Your task to perform on an android device: Do I have any events tomorrow? Image 0: 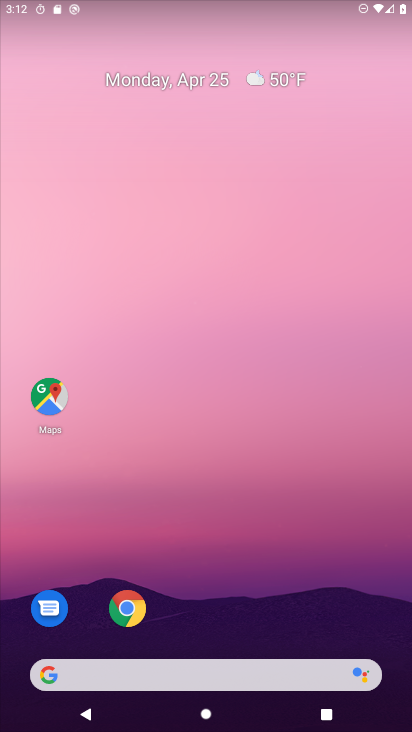
Step 0: drag from (207, 613) to (207, 168)
Your task to perform on an android device: Do I have any events tomorrow? Image 1: 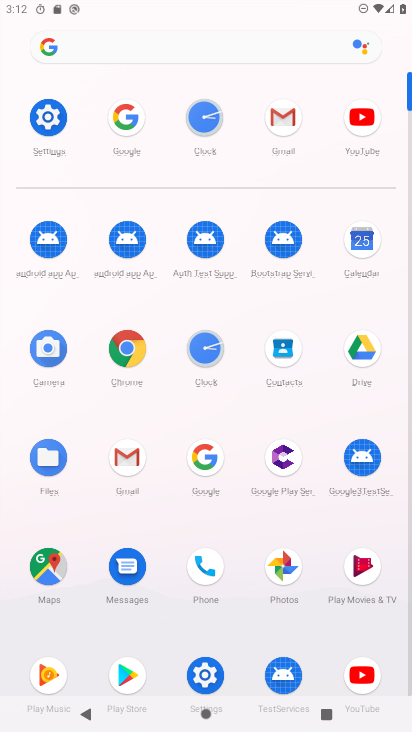
Step 1: click (352, 249)
Your task to perform on an android device: Do I have any events tomorrow? Image 2: 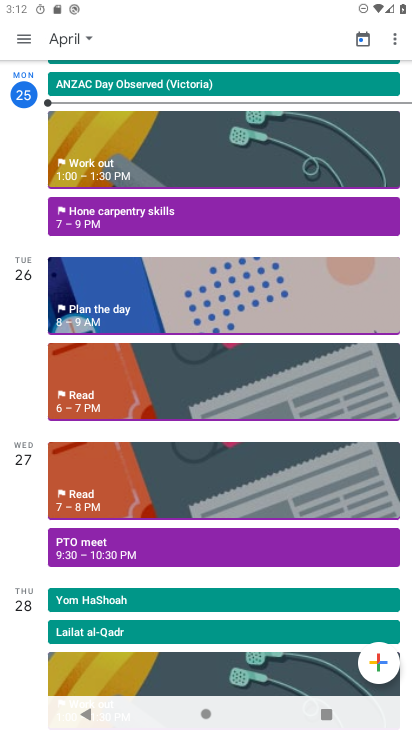
Step 2: click (61, 43)
Your task to perform on an android device: Do I have any events tomorrow? Image 3: 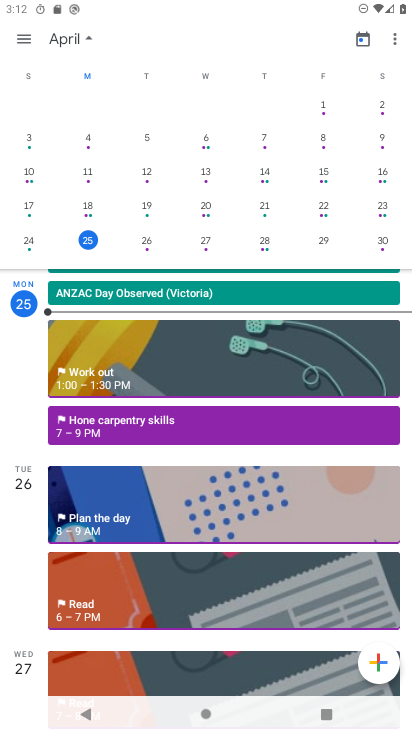
Step 3: click (137, 249)
Your task to perform on an android device: Do I have any events tomorrow? Image 4: 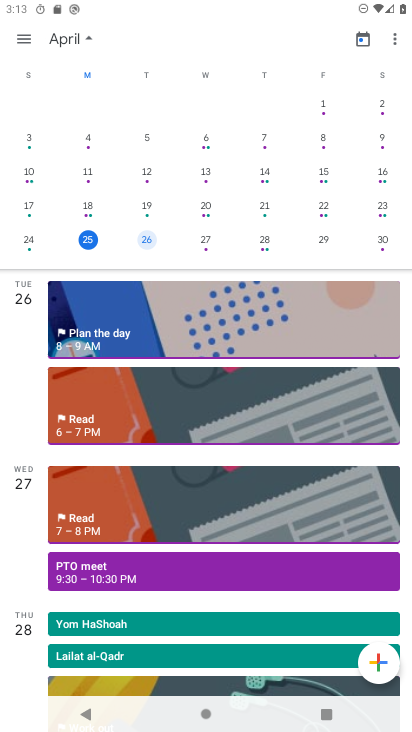
Step 4: click (144, 245)
Your task to perform on an android device: Do I have any events tomorrow? Image 5: 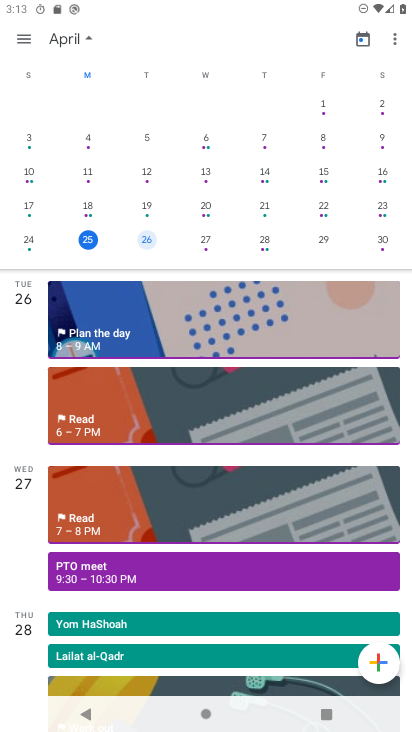
Step 5: click (149, 242)
Your task to perform on an android device: Do I have any events tomorrow? Image 6: 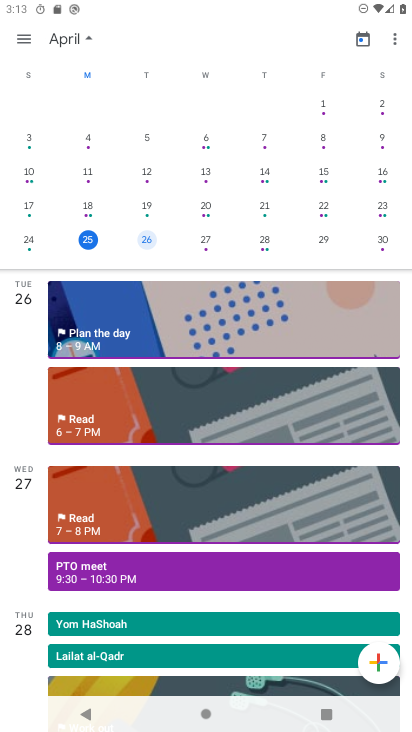
Step 6: task complete